Your task to perform on an android device: turn on airplane mode Image 0: 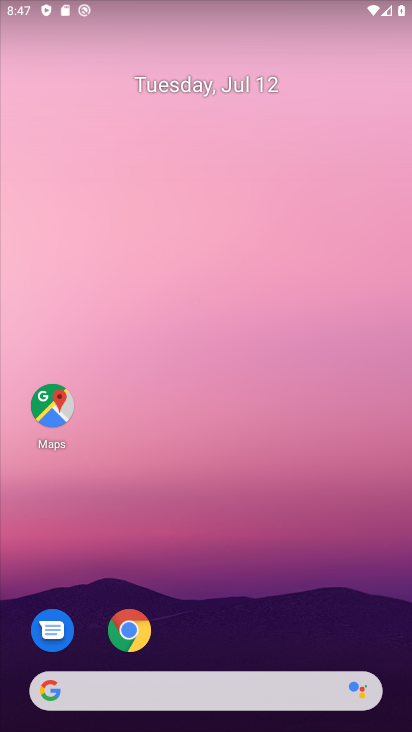
Step 0: drag from (237, 1) to (248, 329)
Your task to perform on an android device: turn on airplane mode Image 1: 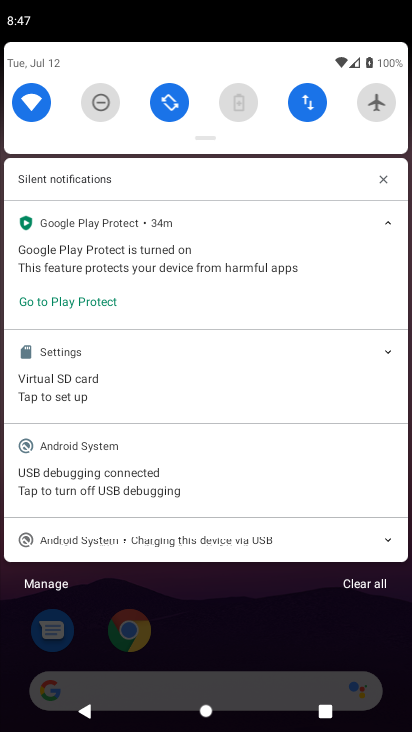
Step 1: click (380, 102)
Your task to perform on an android device: turn on airplane mode Image 2: 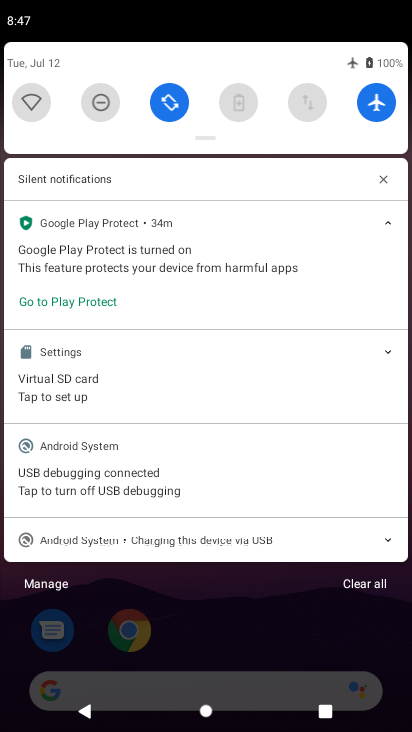
Step 2: task complete